Your task to perform on an android device: change keyboard looks Image 0: 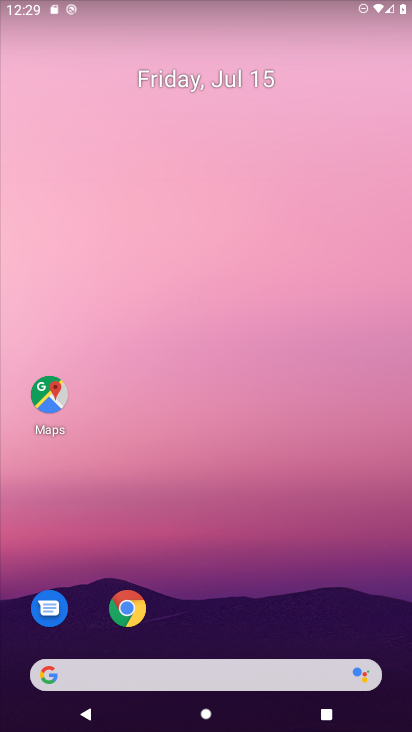
Step 0: drag from (230, 677) to (318, 134)
Your task to perform on an android device: change keyboard looks Image 1: 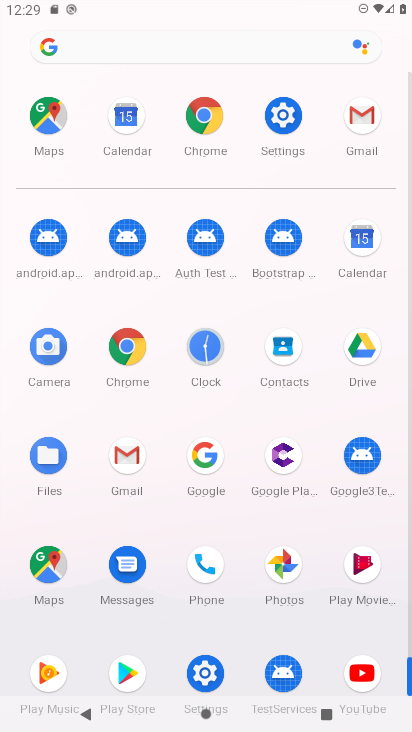
Step 1: click (292, 105)
Your task to perform on an android device: change keyboard looks Image 2: 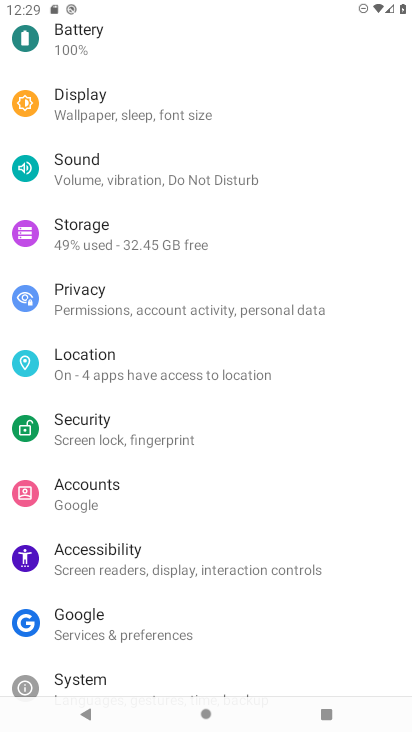
Step 2: drag from (155, 646) to (167, 354)
Your task to perform on an android device: change keyboard looks Image 3: 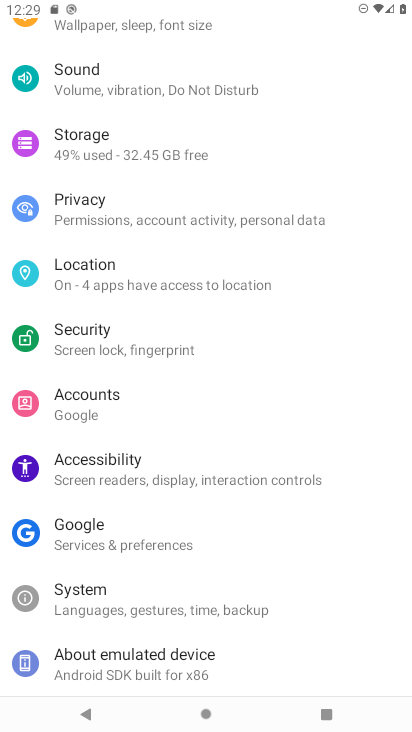
Step 3: click (104, 596)
Your task to perform on an android device: change keyboard looks Image 4: 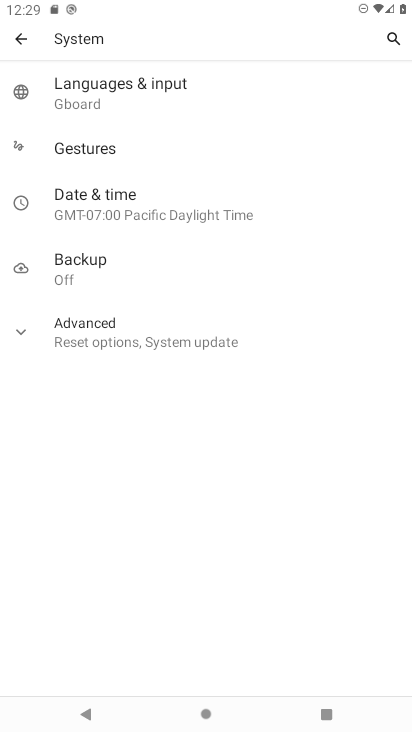
Step 4: click (168, 87)
Your task to perform on an android device: change keyboard looks Image 5: 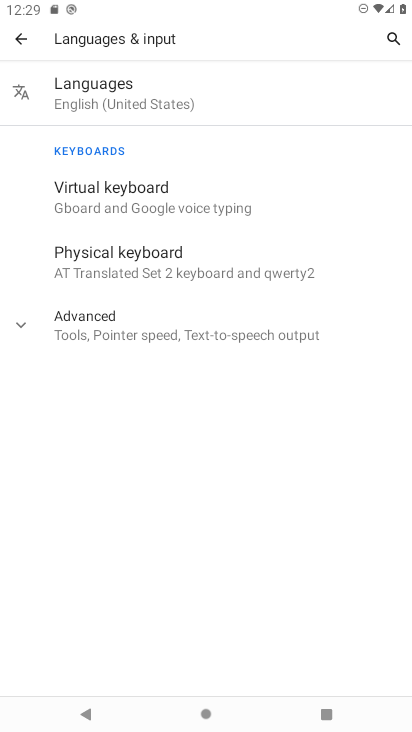
Step 5: click (139, 192)
Your task to perform on an android device: change keyboard looks Image 6: 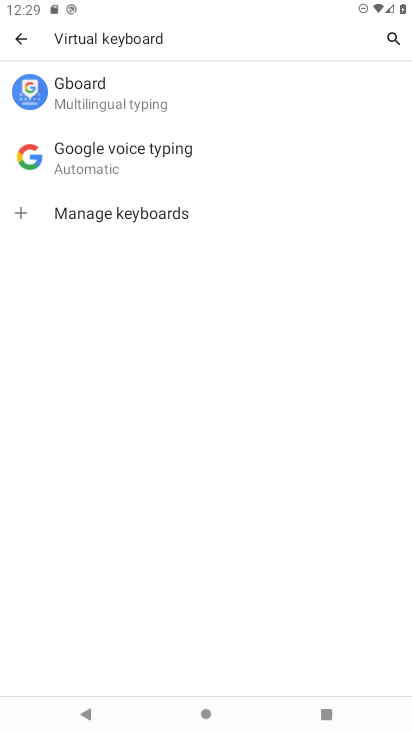
Step 6: click (115, 101)
Your task to perform on an android device: change keyboard looks Image 7: 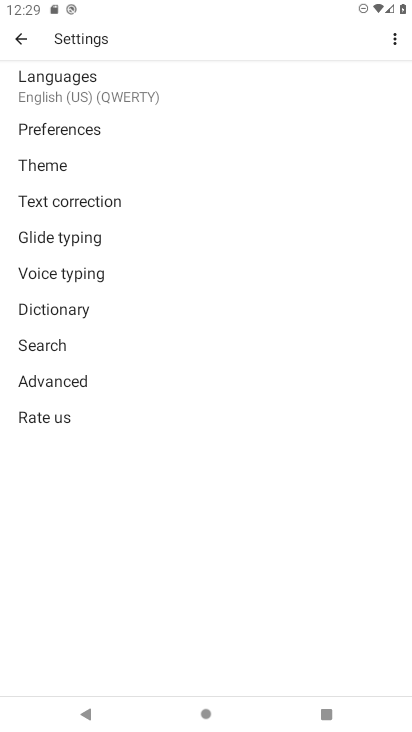
Step 7: click (60, 166)
Your task to perform on an android device: change keyboard looks Image 8: 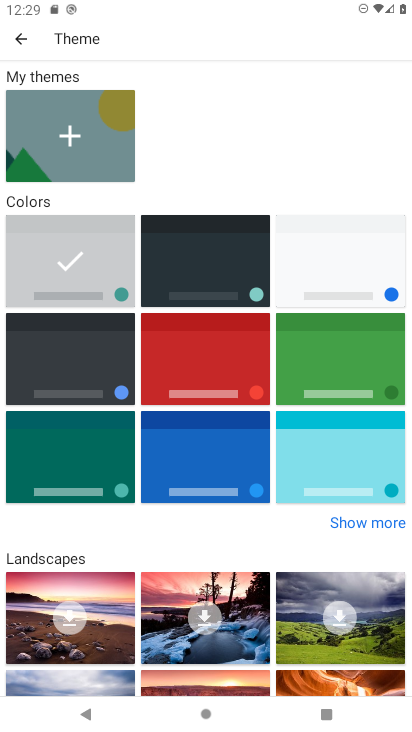
Step 8: click (241, 354)
Your task to perform on an android device: change keyboard looks Image 9: 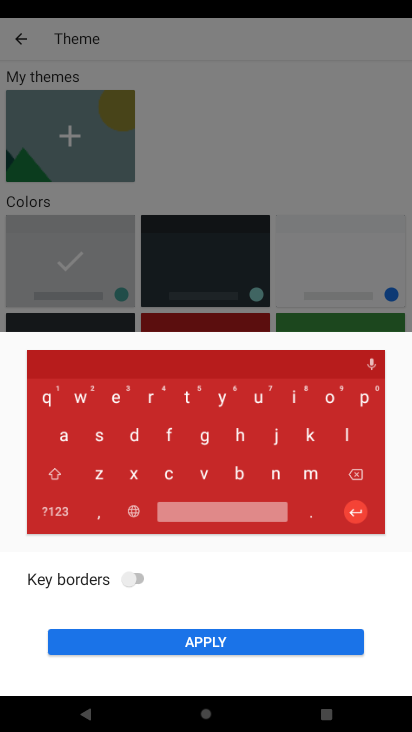
Step 9: click (241, 643)
Your task to perform on an android device: change keyboard looks Image 10: 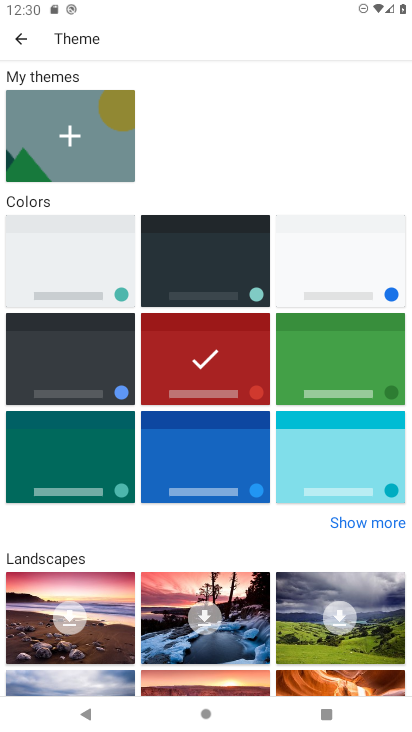
Step 10: task complete